Your task to perform on an android device: Open CNN.com Image 0: 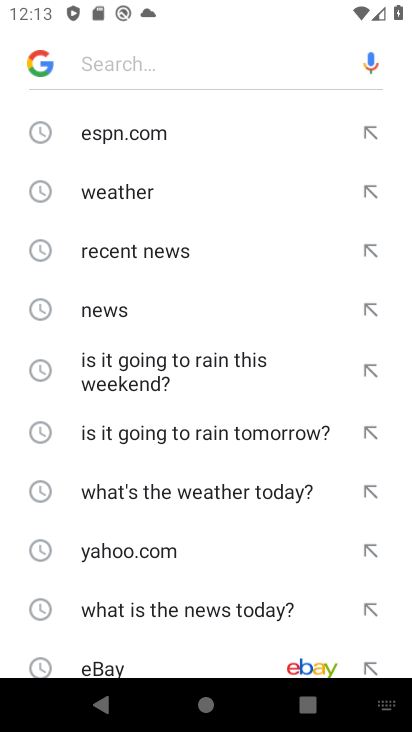
Step 0: drag from (122, 460) to (132, 173)
Your task to perform on an android device: Open CNN.com Image 1: 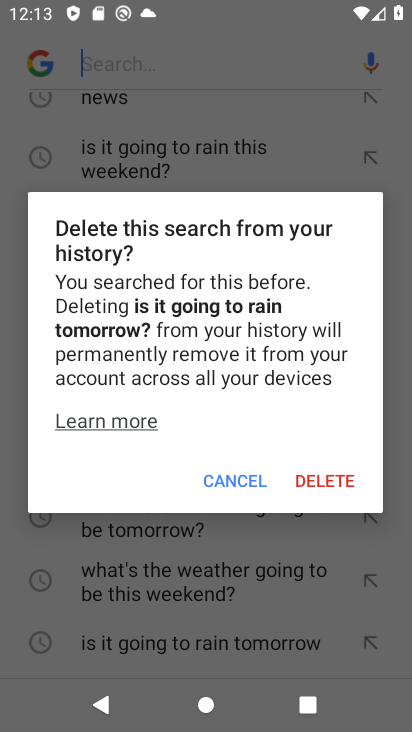
Step 1: click (226, 486)
Your task to perform on an android device: Open CNN.com Image 2: 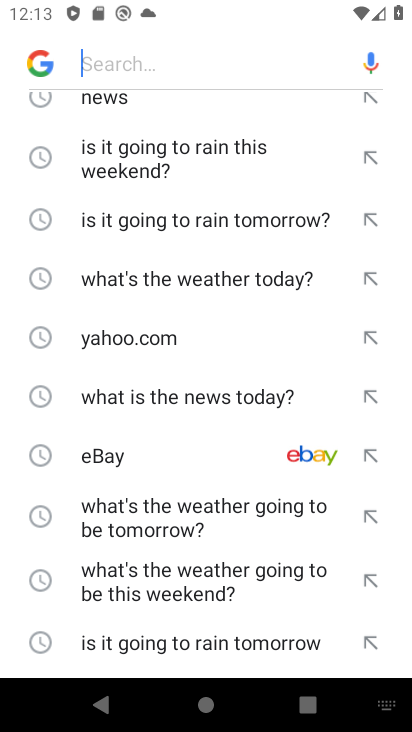
Step 2: drag from (147, 186) to (159, 514)
Your task to perform on an android device: Open CNN.com Image 3: 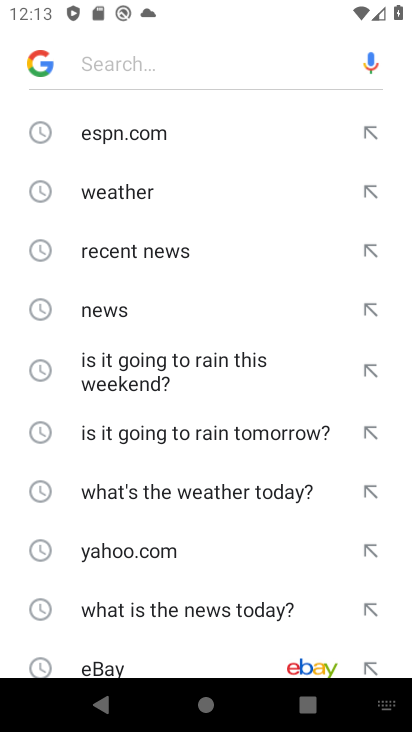
Step 3: type "cnn"
Your task to perform on an android device: Open CNN.com Image 4: 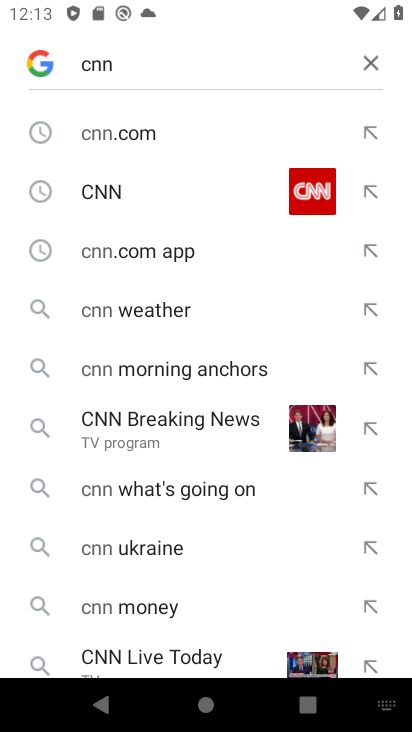
Step 4: click (166, 184)
Your task to perform on an android device: Open CNN.com Image 5: 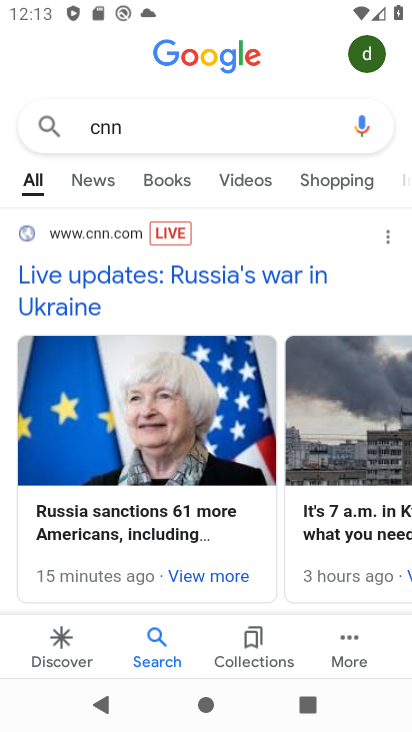
Step 5: click (55, 277)
Your task to perform on an android device: Open CNN.com Image 6: 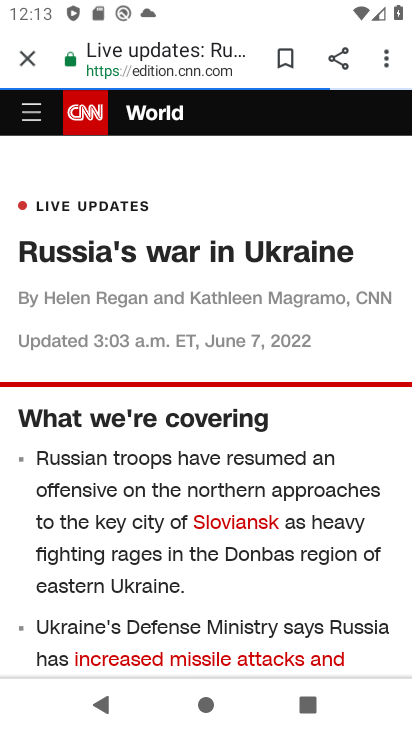
Step 6: task complete